Your task to perform on an android device: What's the weather going to be tomorrow? Image 0: 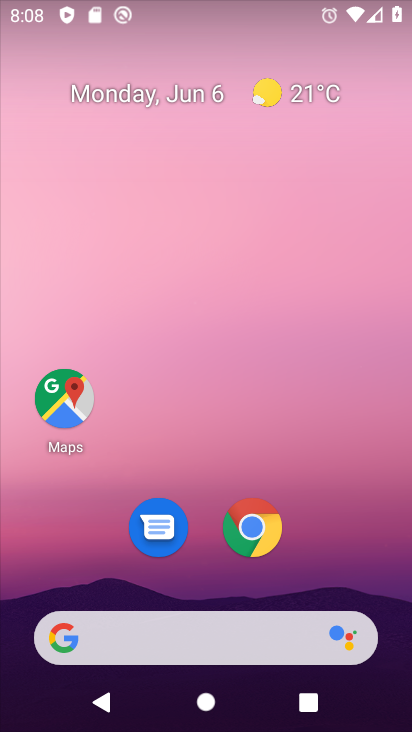
Step 0: click (283, 85)
Your task to perform on an android device: What's the weather going to be tomorrow? Image 1: 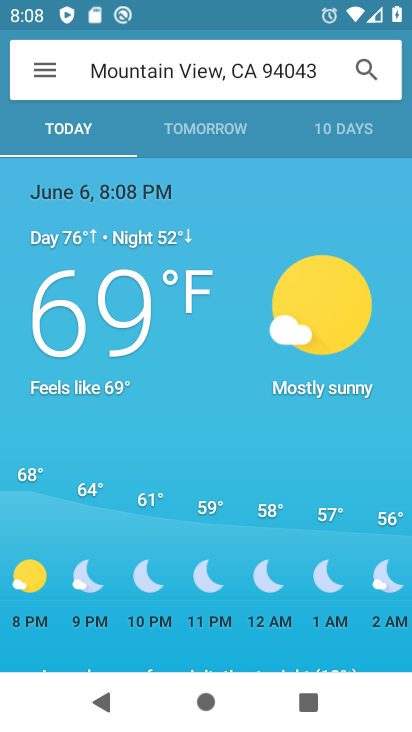
Step 1: click (228, 132)
Your task to perform on an android device: What's the weather going to be tomorrow? Image 2: 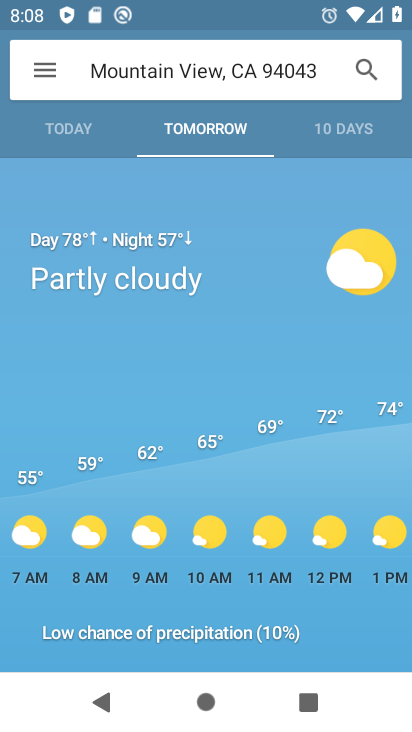
Step 2: task complete